Your task to perform on an android device: find photos in the google photos app Image 0: 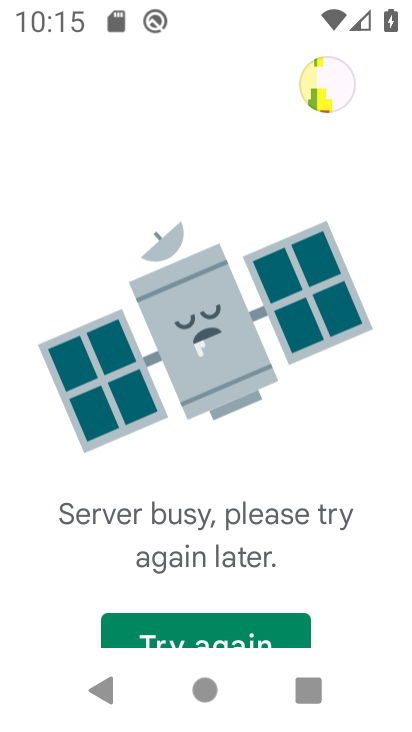
Step 0: press home button
Your task to perform on an android device: find photos in the google photos app Image 1: 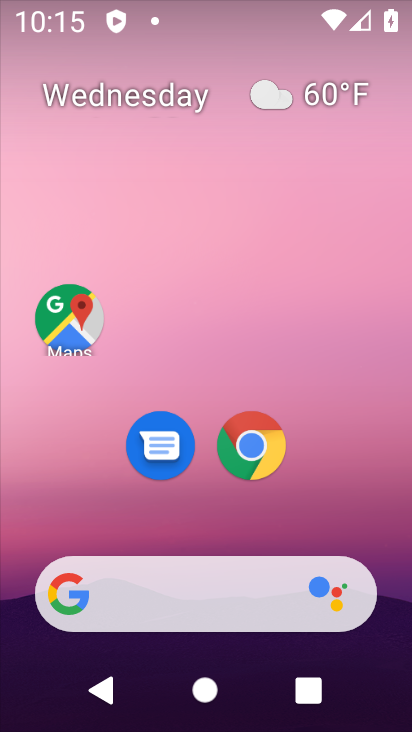
Step 1: drag from (211, 518) to (216, 187)
Your task to perform on an android device: find photos in the google photos app Image 2: 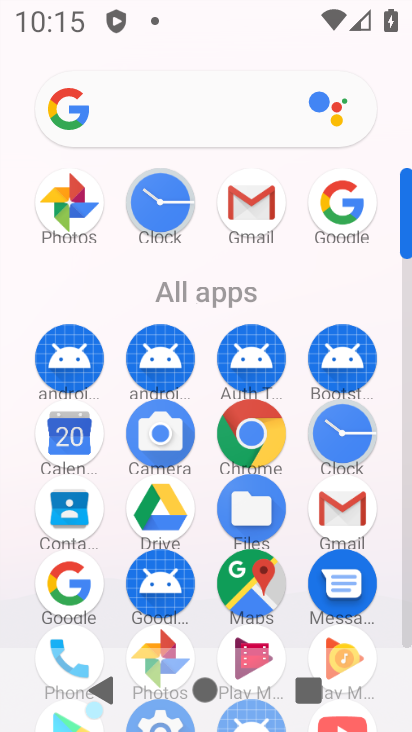
Step 2: click (77, 203)
Your task to perform on an android device: find photos in the google photos app Image 3: 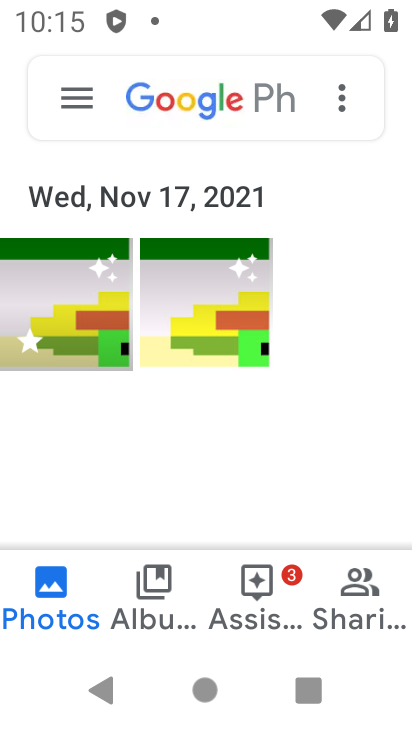
Step 3: click (192, 103)
Your task to perform on an android device: find photos in the google photos app Image 4: 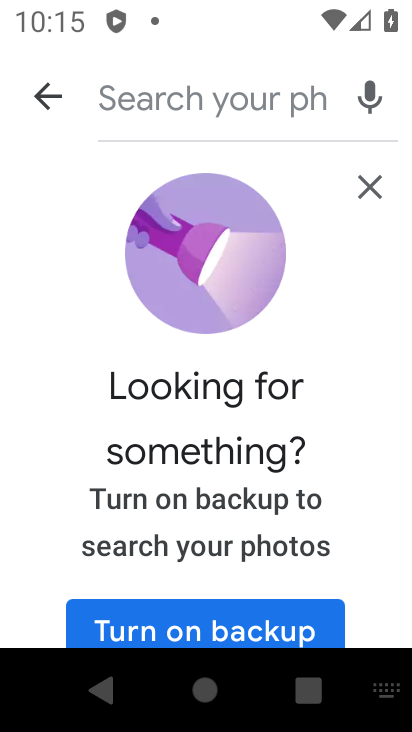
Step 4: type "aaa"
Your task to perform on an android device: find photos in the google photos app Image 5: 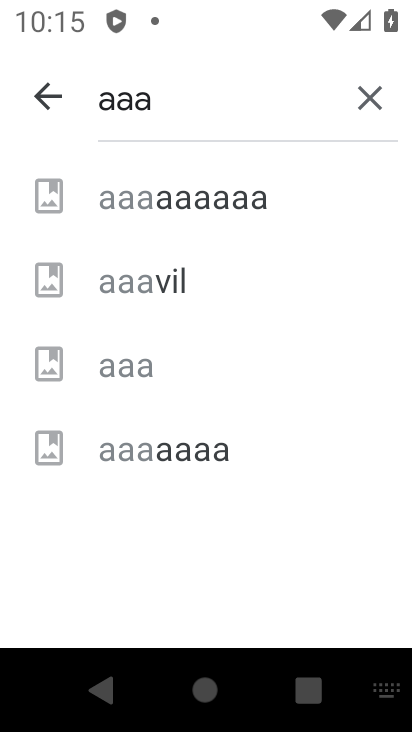
Step 5: click (161, 273)
Your task to perform on an android device: find photos in the google photos app Image 6: 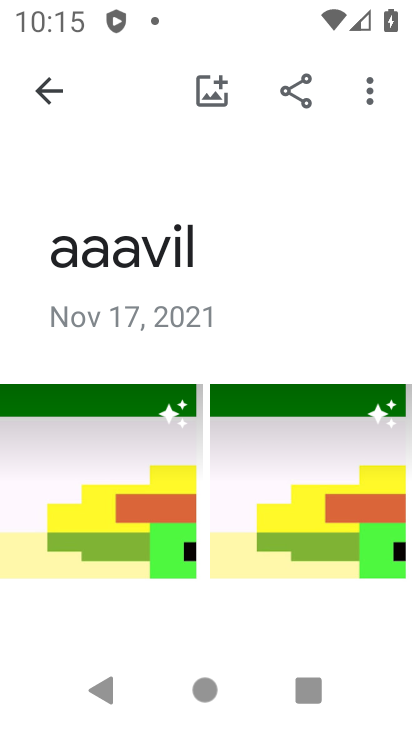
Step 6: task complete